Your task to perform on an android device: search for starred emails in the gmail app Image 0: 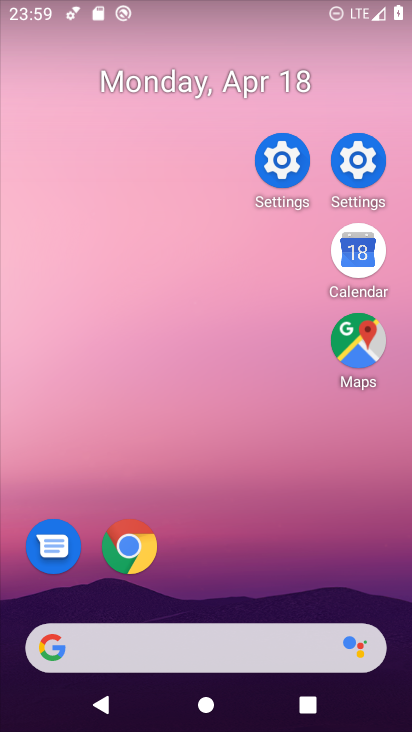
Step 0: click (191, 49)
Your task to perform on an android device: search for starred emails in the gmail app Image 1: 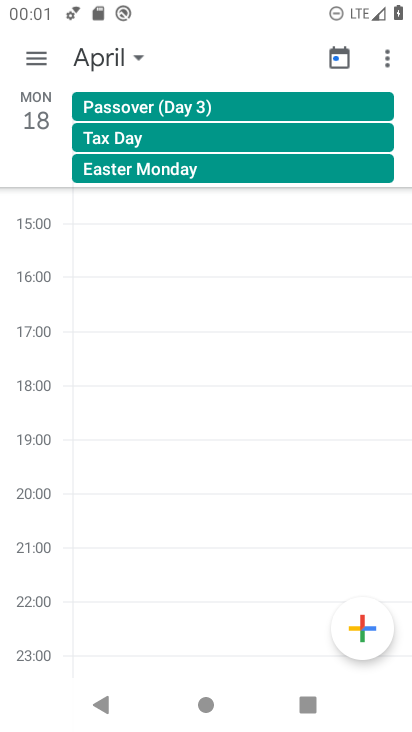
Step 1: press home button
Your task to perform on an android device: search for starred emails in the gmail app Image 2: 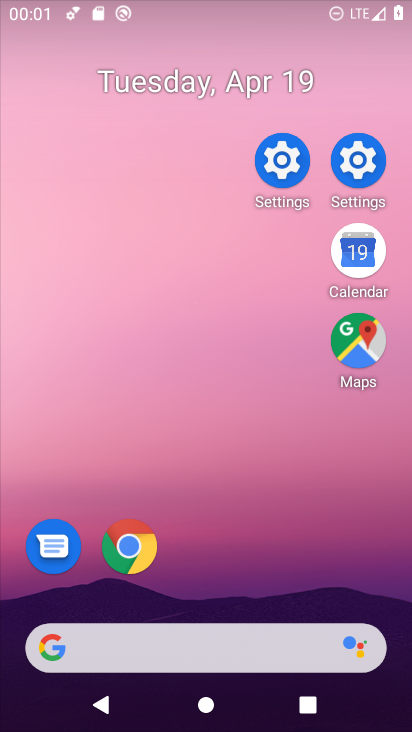
Step 2: press home button
Your task to perform on an android device: search for starred emails in the gmail app Image 3: 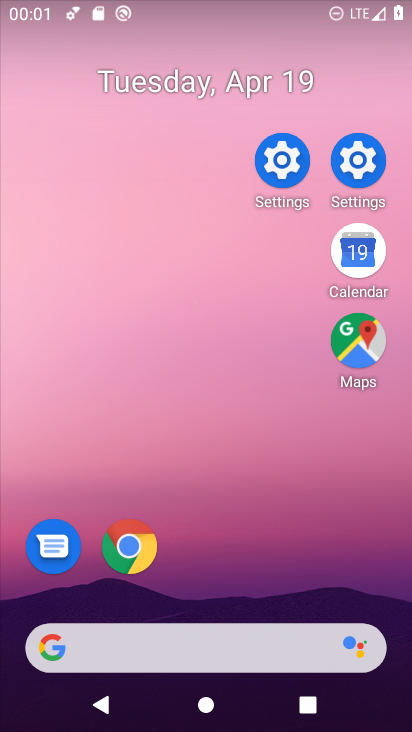
Step 3: drag from (331, 417) to (234, 176)
Your task to perform on an android device: search for starred emails in the gmail app Image 4: 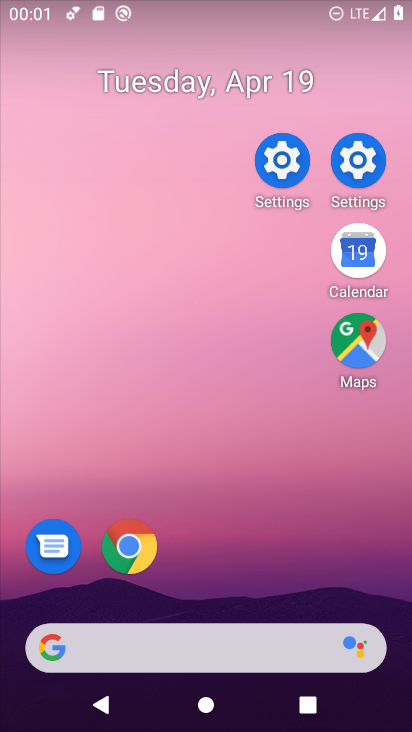
Step 4: drag from (290, 612) to (159, 127)
Your task to perform on an android device: search for starred emails in the gmail app Image 5: 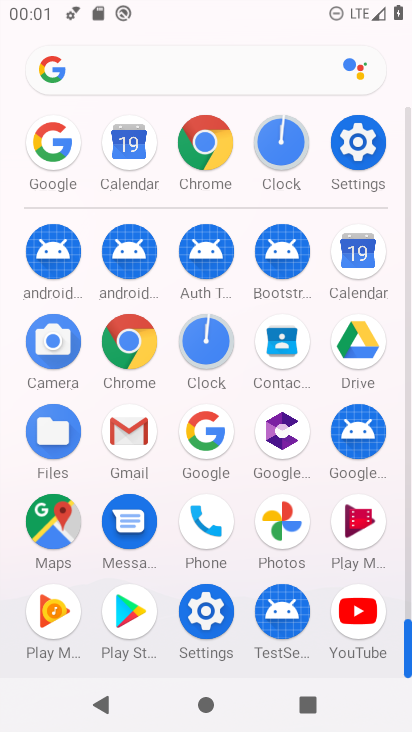
Step 5: click (101, 416)
Your task to perform on an android device: search for starred emails in the gmail app Image 6: 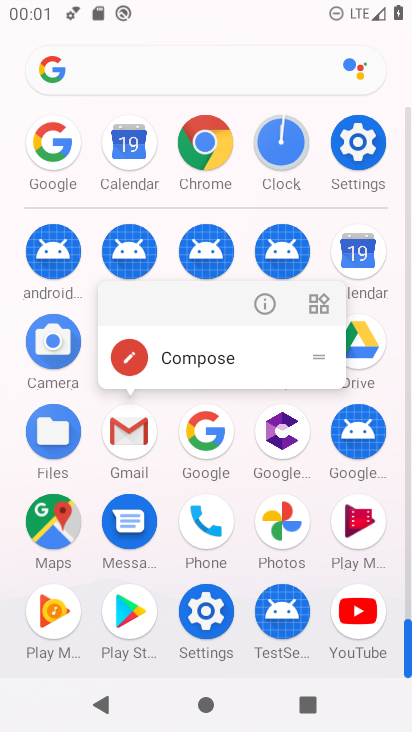
Step 6: click (135, 435)
Your task to perform on an android device: search for starred emails in the gmail app Image 7: 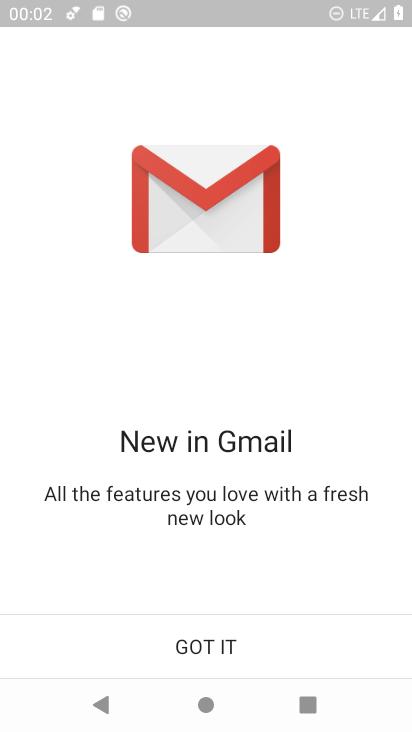
Step 7: click (187, 638)
Your task to perform on an android device: search for starred emails in the gmail app Image 8: 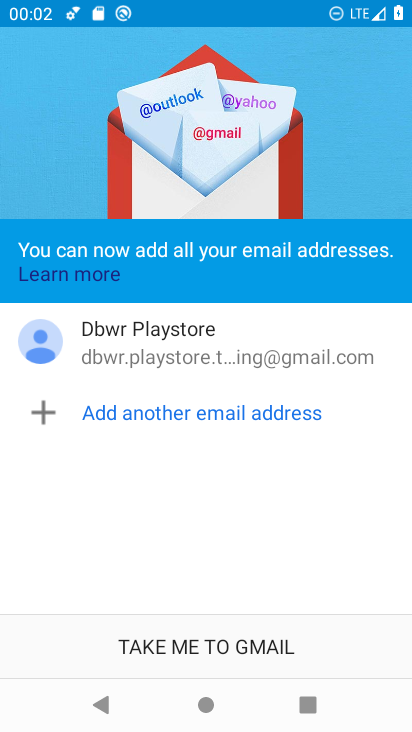
Step 8: click (204, 635)
Your task to perform on an android device: search for starred emails in the gmail app Image 9: 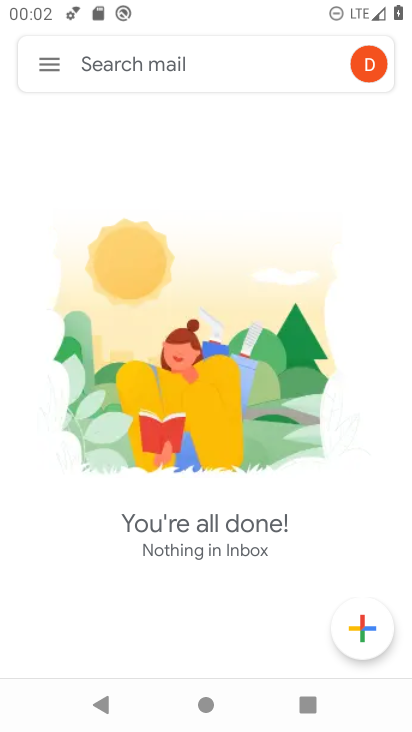
Step 9: click (53, 70)
Your task to perform on an android device: search for starred emails in the gmail app Image 10: 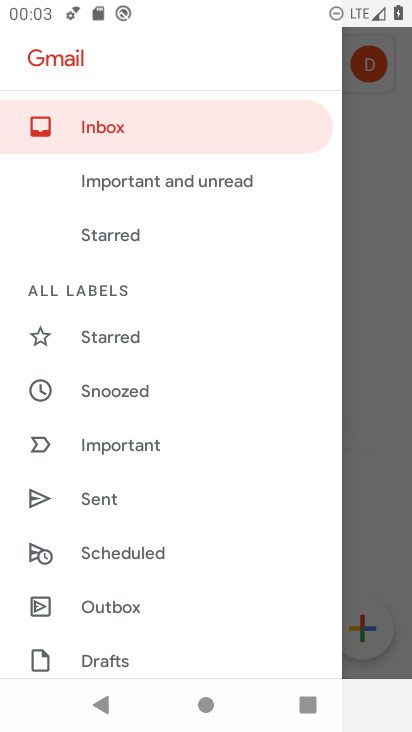
Step 10: click (134, 340)
Your task to perform on an android device: search for starred emails in the gmail app Image 11: 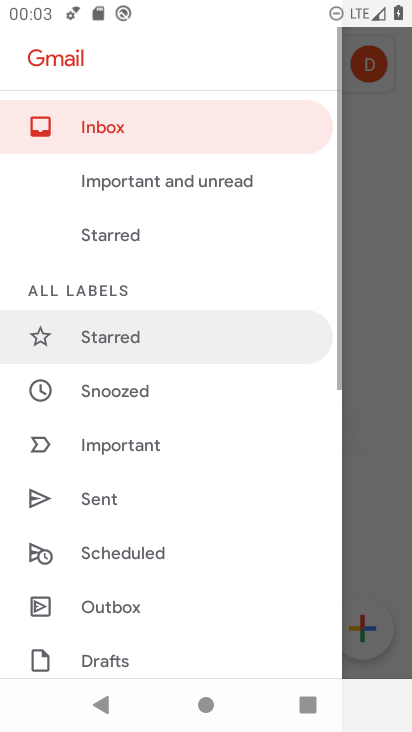
Step 11: click (134, 340)
Your task to perform on an android device: search for starred emails in the gmail app Image 12: 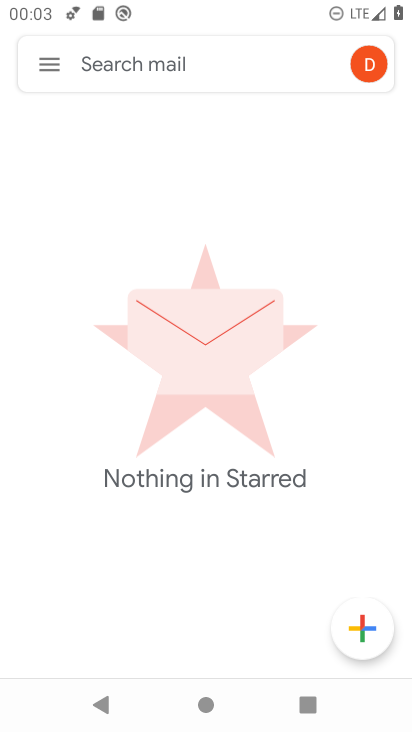
Step 12: task complete